Your task to perform on an android device: When is my next meeting? Image 0: 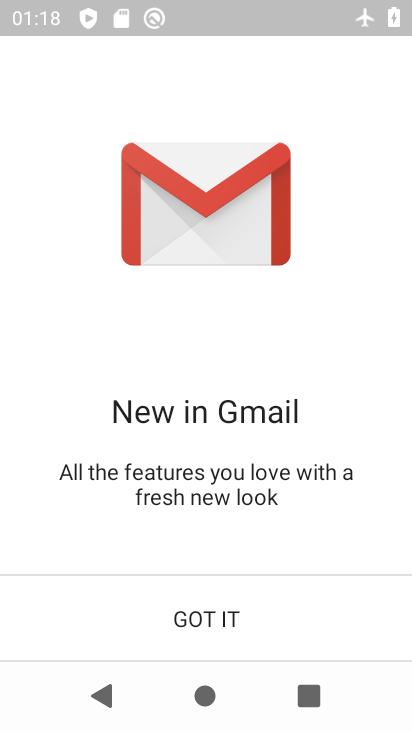
Step 0: press home button
Your task to perform on an android device: When is my next meeting? Image 1: 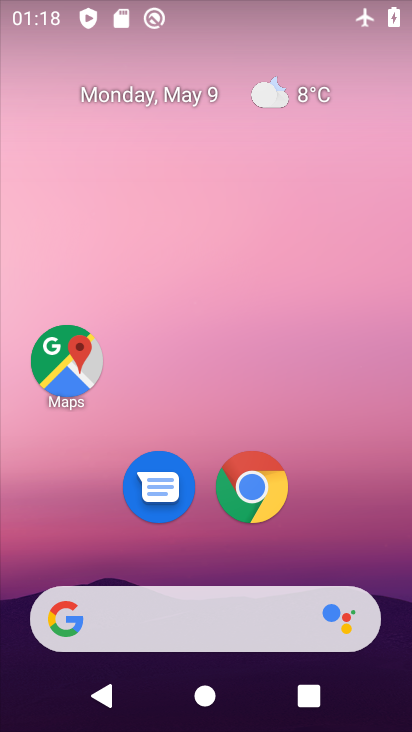
Step 1: drag from (348, 541) to (309, 7)
Your task to perform on an android device: When is my next meeting? Image 2: 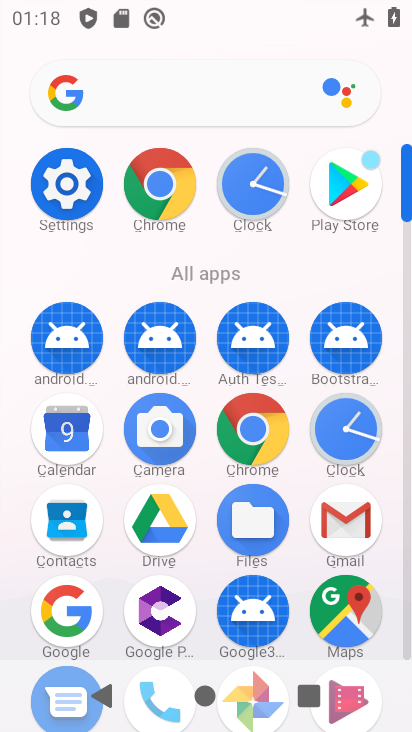
Step 2: click (81, 432)
Your task to perform on an android device: When is my next meeting? Image 3: 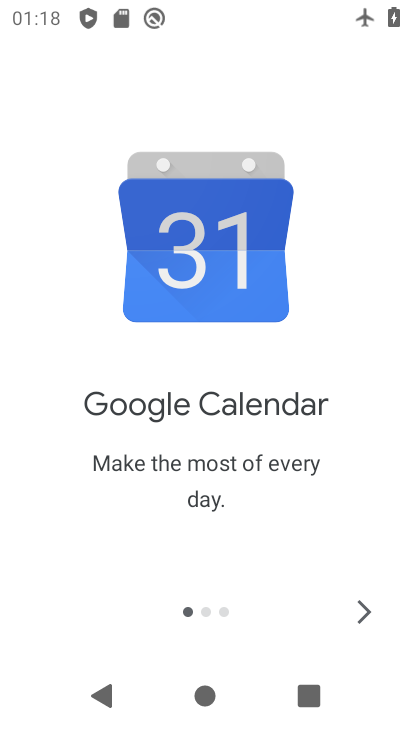
Step 3: click (363, 632)
Your task to perform on an android device: When is my next meeting? Image 4: 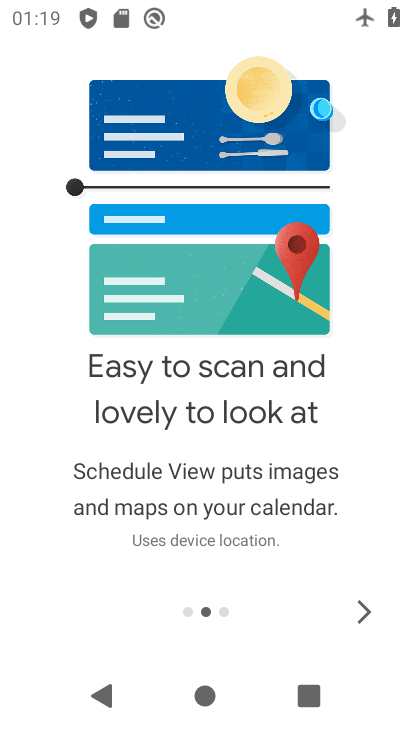
Step 4: click (363, 632)
Your task to perform on an android device: When is my next meeting? Image 5: 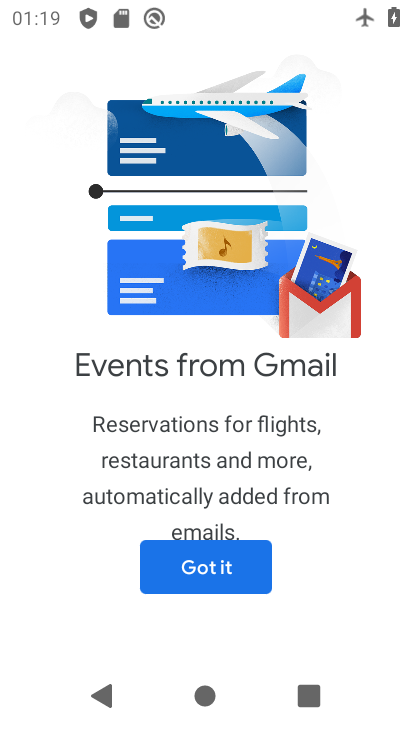
Step 5: click (211, 580)
Your task to perform on an android device: When is my next meeting? Image 6: 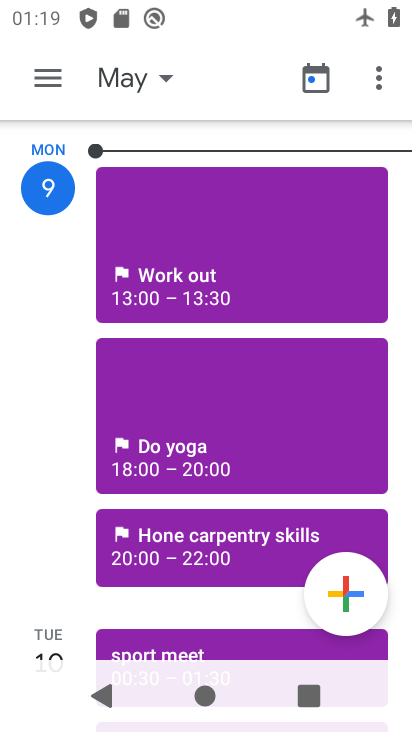
Step 6: task complete